Your task to perform on an android device: change notification settings in the gmail app Image 0: 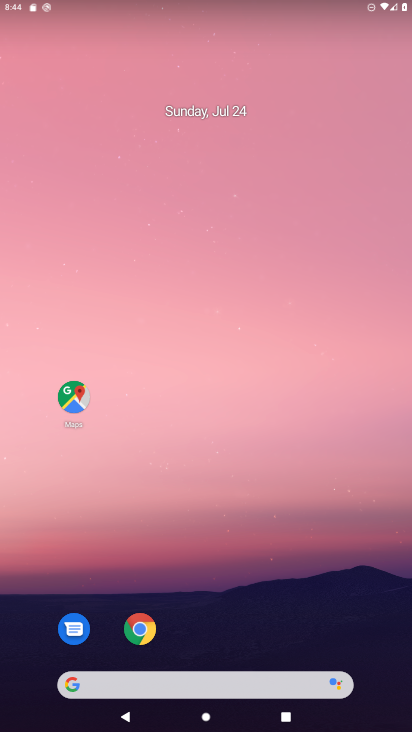
Step 0: drag from (373, 664) to (239, 3)
Your task to perform on an android device: change notification settings in the gmail app Image 1: 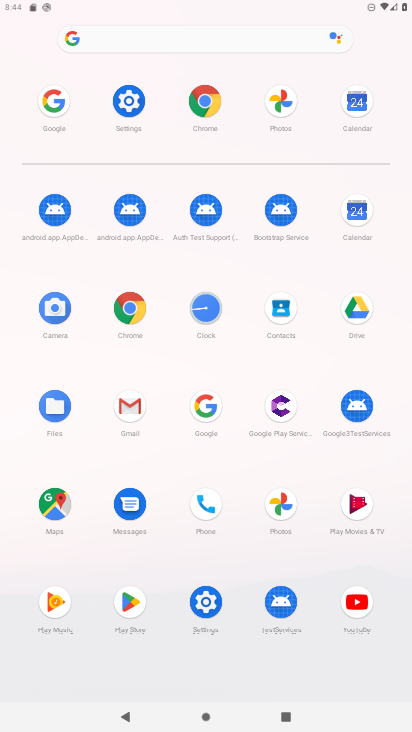
Step 1: click (137, 408)
Your task to perform on an android device: change notification settings in the gmail app Image 2: 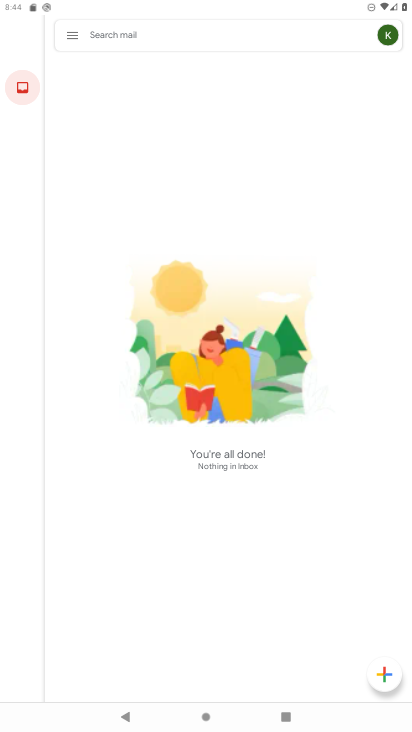
Step 2: click (72, 38)
Your task to perform on an android device: change notification settings in the gmail app Image 3: 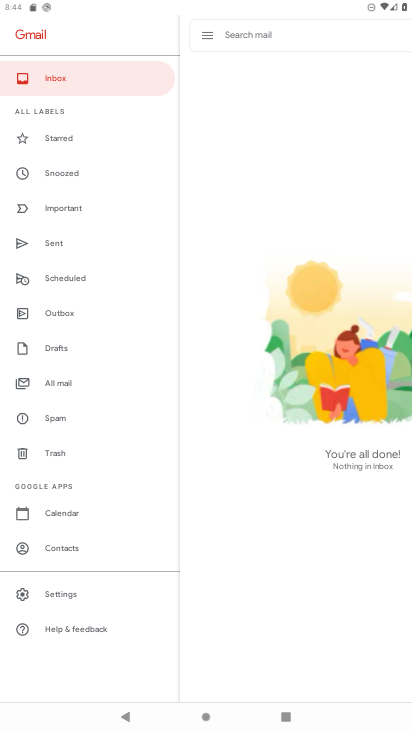
Step 3: click (64, 594)
Your task to perform on an android device: change notification settings in the gmail app Image 4: 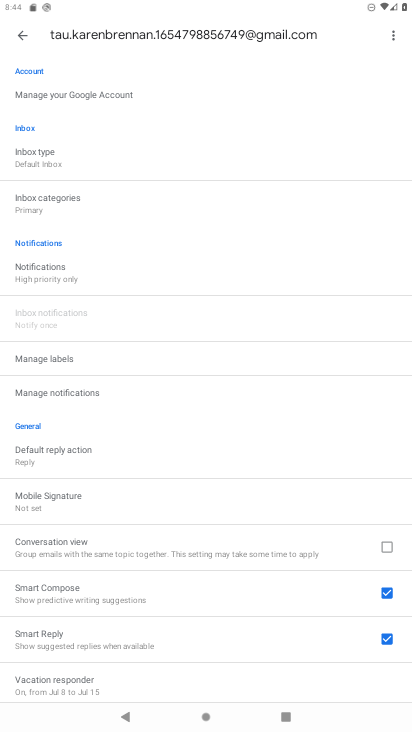
Step 4: click (36, 270)
Your task to perform on an android device: change notification settings in the gmail app Image 5: 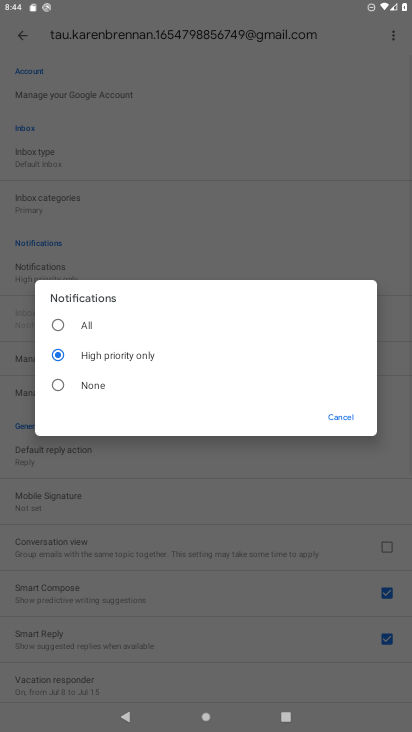
Step 5: click (77, 319)
Your task to perform on an android device: change notification settings in the gmail app Image 6: 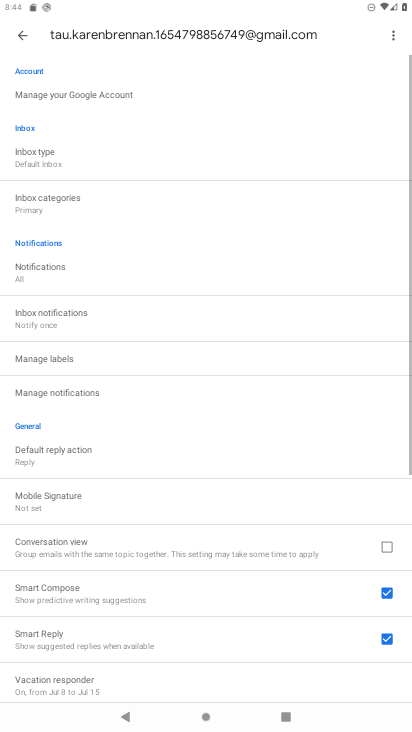
Step 6: task complete